Your task to perform on an android device: clear all cookies in the chrome app Image 0: 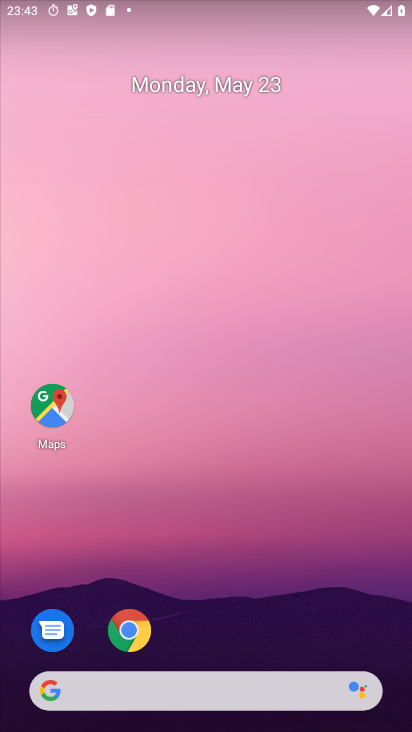
Step 0: click (136, 630)
Your task to perform on an android device: clear all cookies in the chrome app Image 1: 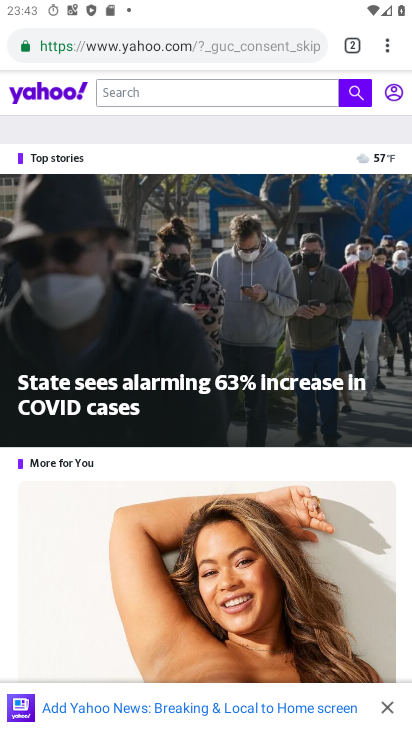
Step 1: click (387, 50)
Your task to perform on an android device: clear all cookies in the chrome app Image 2: 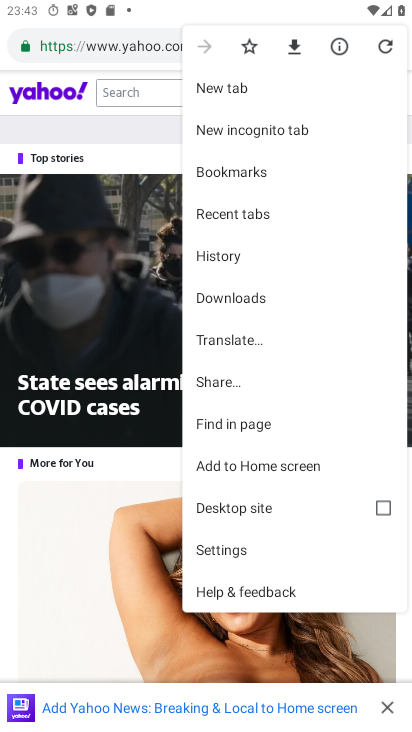
Step 2: click (219, 547)
Your task to perform on an android device: clear all cookies in the chrome app Image 3: 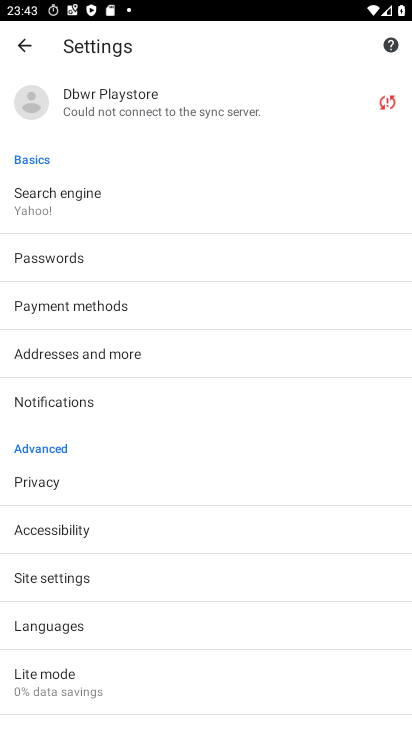
Step 3: click (25, 487)
Your task to perform on an android device: clear all cookies in the chrome app Image 4: 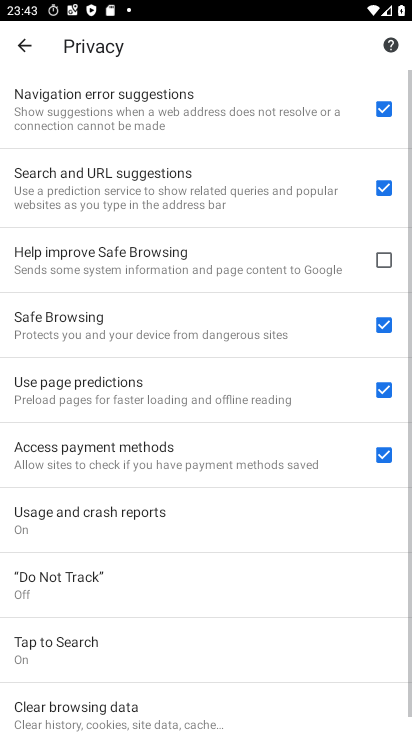
Step 4: drag from (246, 638) to (228, 179)
Your task to perform on an android device: clear all cookies in the chrome app Image 5: 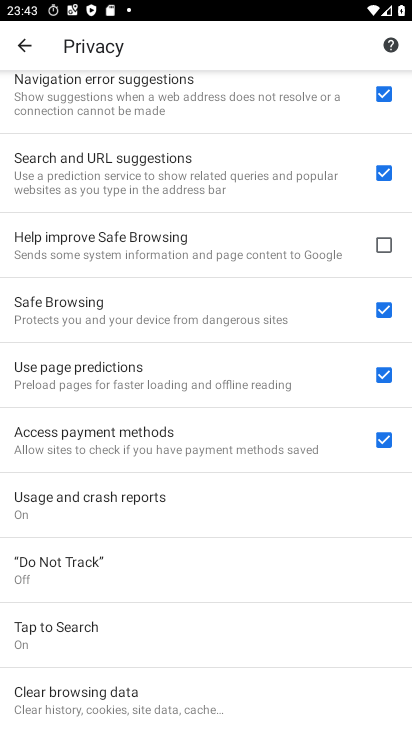
Step 5: click (90, 708)
Your task to perform on an android device: clear all cookies in the chrome app Image 6: 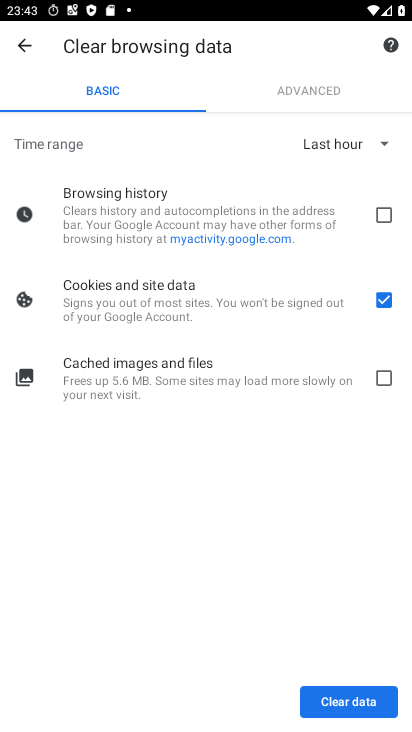
Step 6: click (355, 704)
Your task to perform on an android device: clear all cookies in the chrome app Image 7: 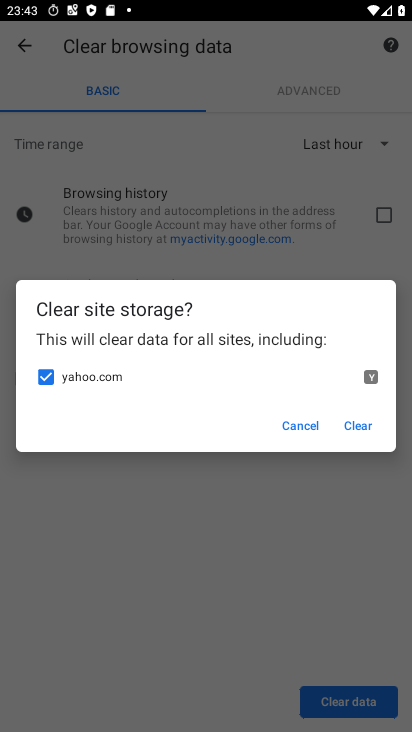
Step 7: click (363, 426)
Your task to perform on an android device: clear all cookies in the chrome app Image 8: 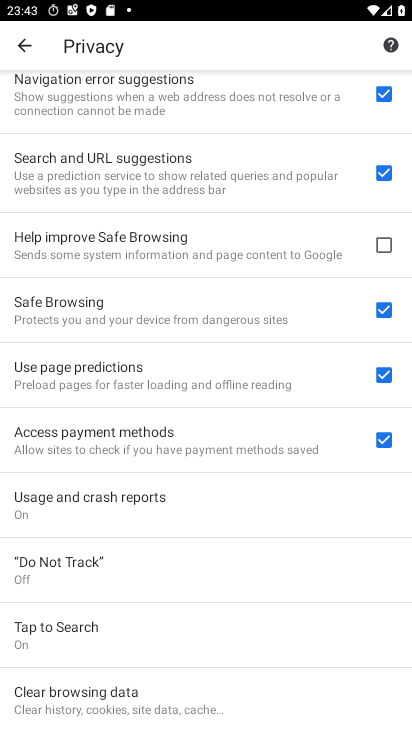
Step 8: task complete